Your task to perform on an android device: toggle priority inbox in the gmail app Image 0: 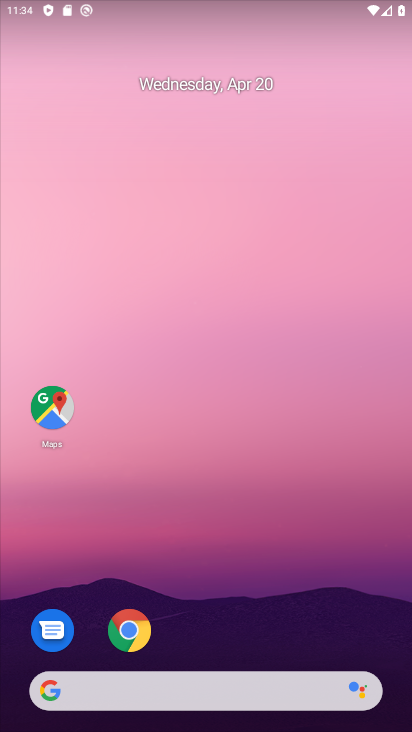
Step 0: drag from (239, 436) to (272, 306)
Your task to perform on an android device: toggle priority inbox in the gmail app Image 1: 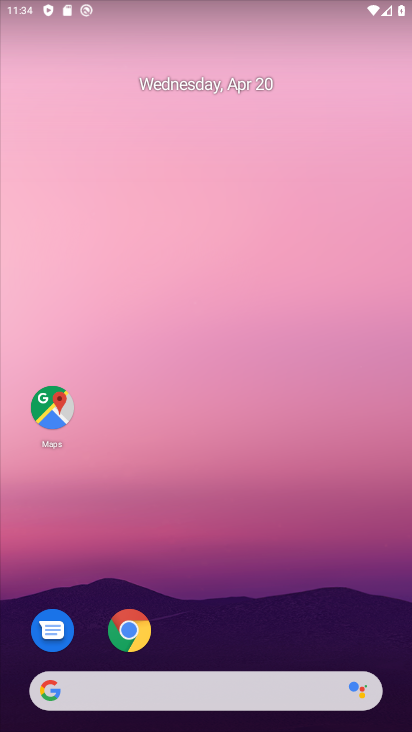
Step 1: drag from (206, 648) to (263, 310)
Your task to perform on an android device: toggle priority inbox in the gmail app Image 2: 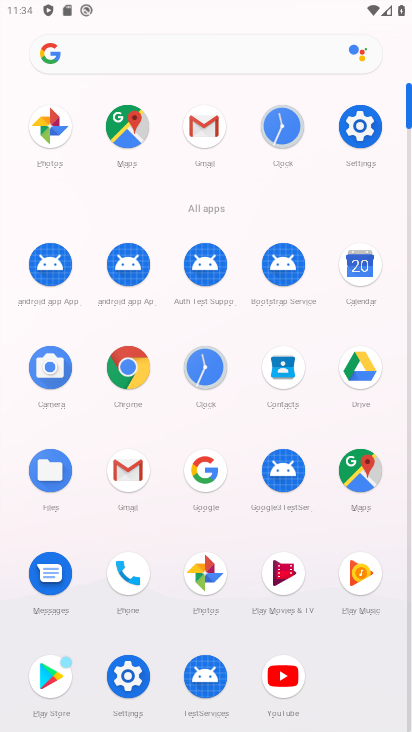
Step 2: click (125, 476)
Your task to perform on an android device: toggle priority inbox in the gmail app Image 3: 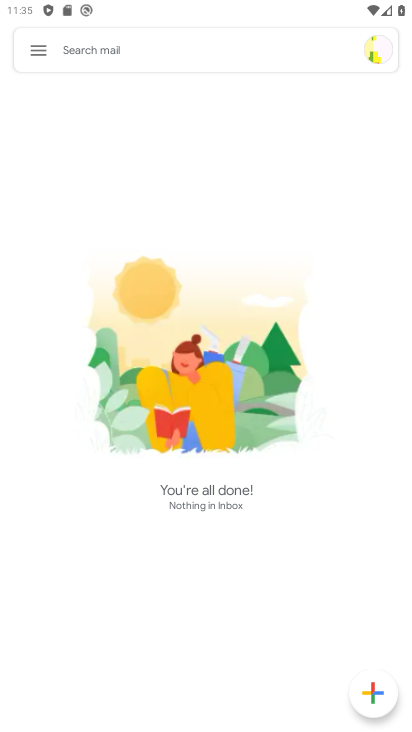
Step 3: drag from (152, 533) to (209, 297)
Your task to perform on an android device: toggle priority inbox in the gmail app Image 4: 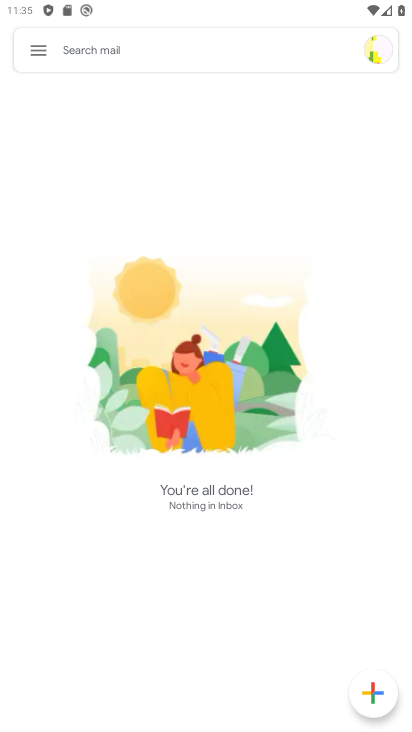
Step 4: click (32, 42)
Your task to perform on an android device: toggle priority inbox in the gmail app Image 5: 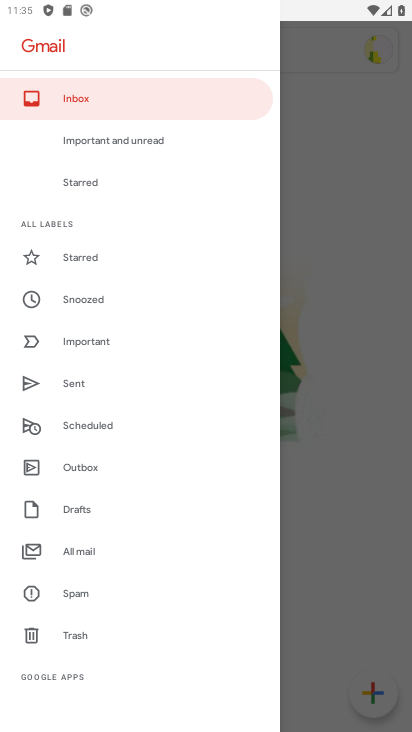
Step 5: drag from (109, 616) to (251, 89)
Your task to perform on an android device: toggle priority inbox in the gmail app Image 6: 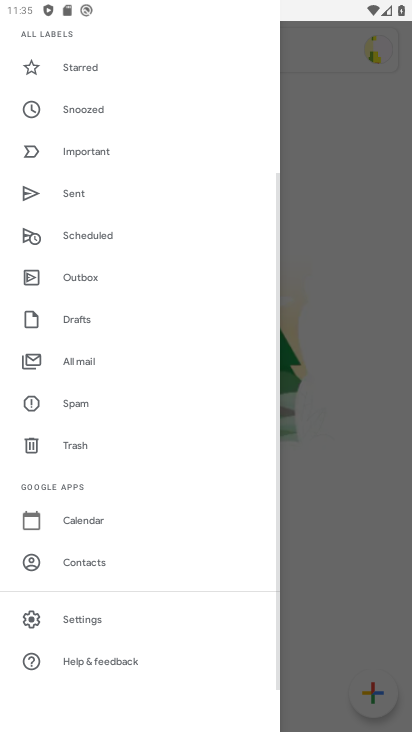
Step 6: click (92, 623)
Your task to perform on an android device: toggle priority inbox in the gmail app Image 7: 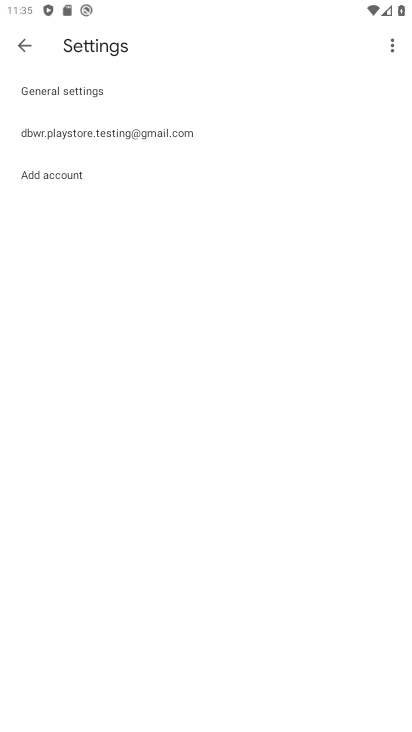
Step 7: click (144, 115)
Your task to perform on an android device: toggle priority inbox in the gmail app Image 8: 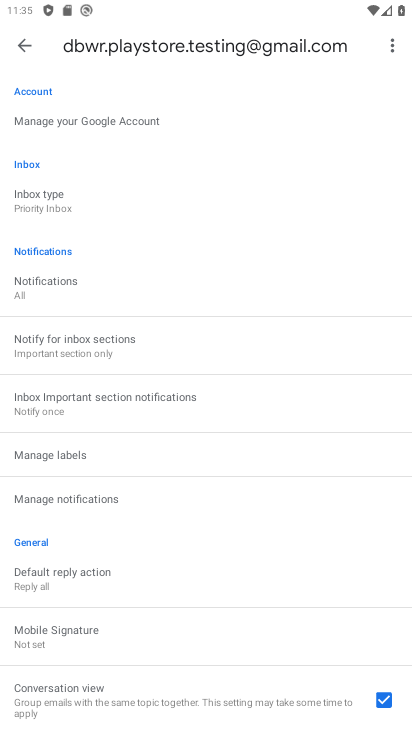
Step 8: click (95, 211)
Your task to perform on an android device: toggle priority inbox in the gmail app Image 9: 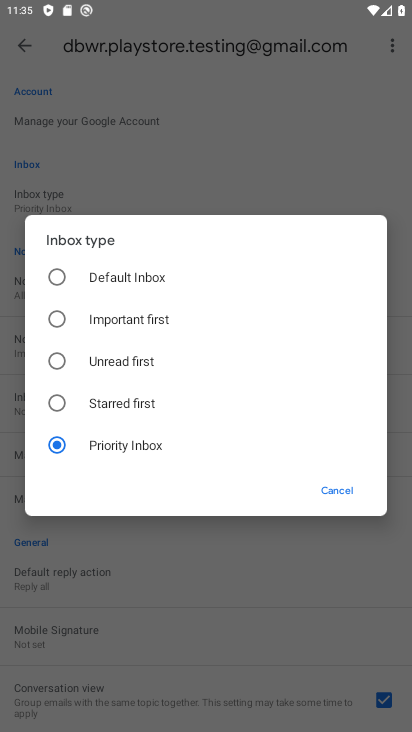
Step 9: click (121, 320)
Your task to perform on an android device: toggle priority inbox in the gmail app Image 10: 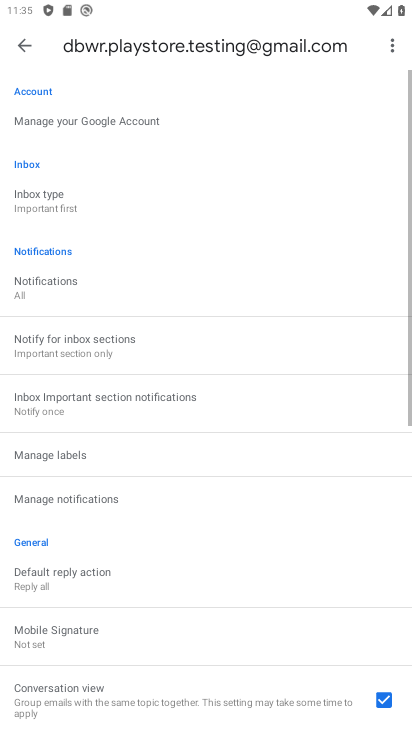
Step 10: task complete